Your task to perform on an android device: Add panasonic triple a to the cart on newegg Image 0: 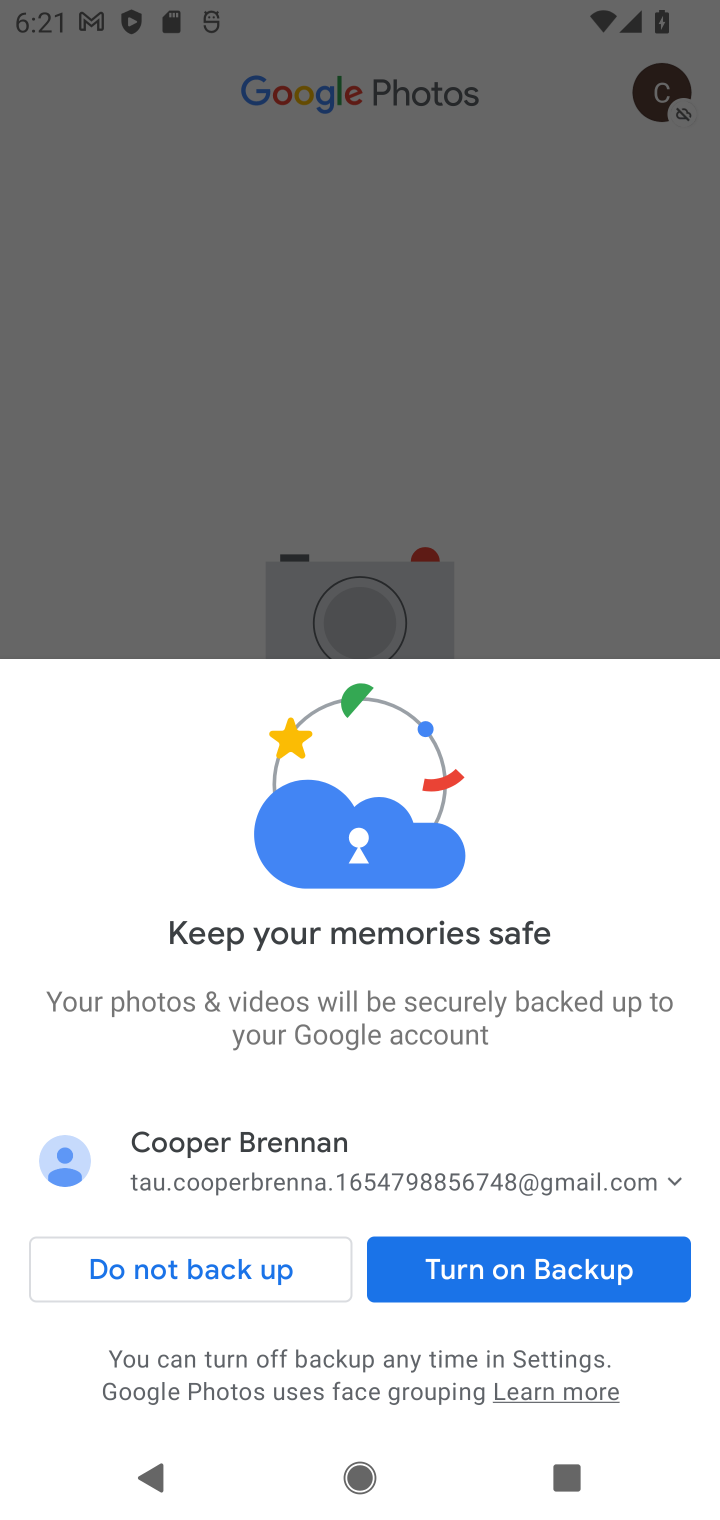
Step 0: press home button
Your task to perform on an android device: Add panasonic triple a to the cart on newegg Image 1: 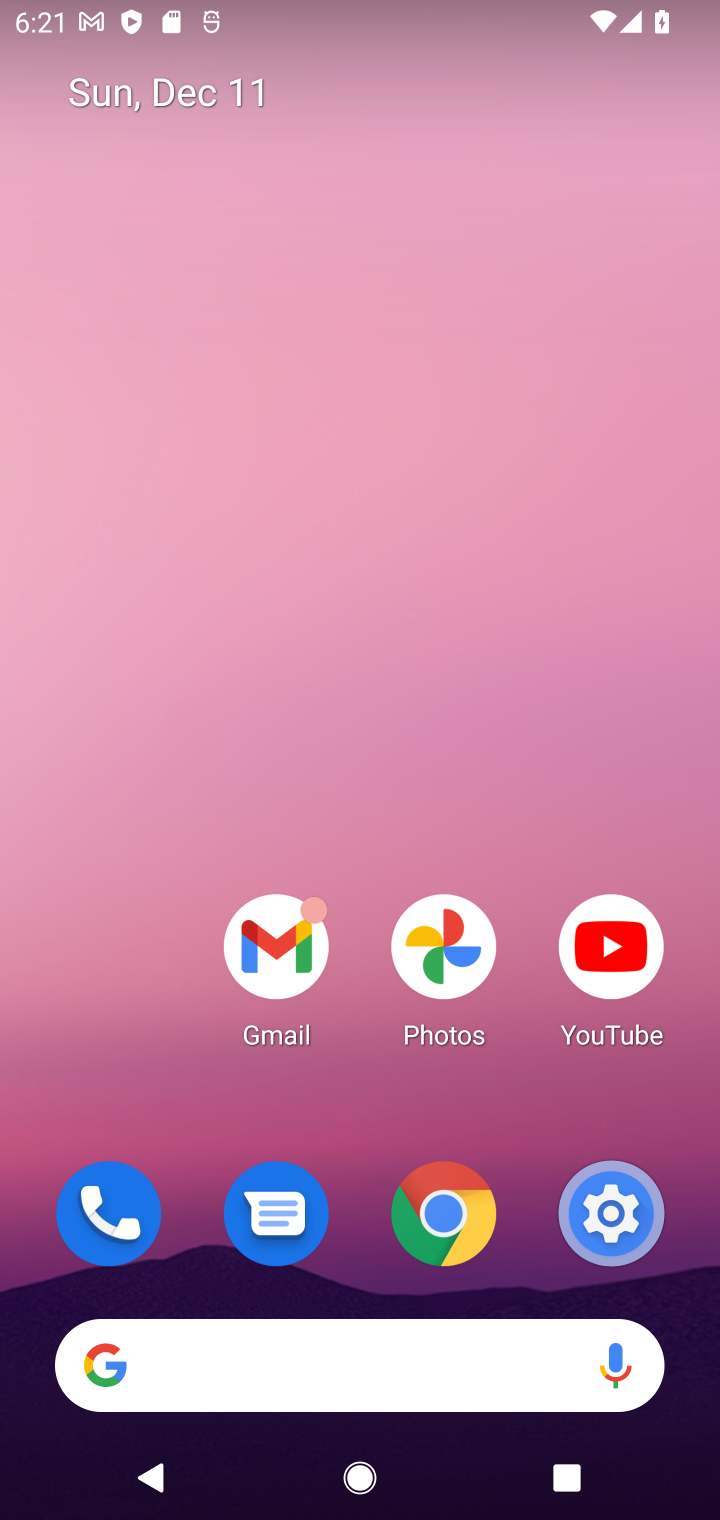
Step 1: click (415, 1325)
Your task to perform on an android device: Add panasonic triple a to the cart on newegg Image 2: 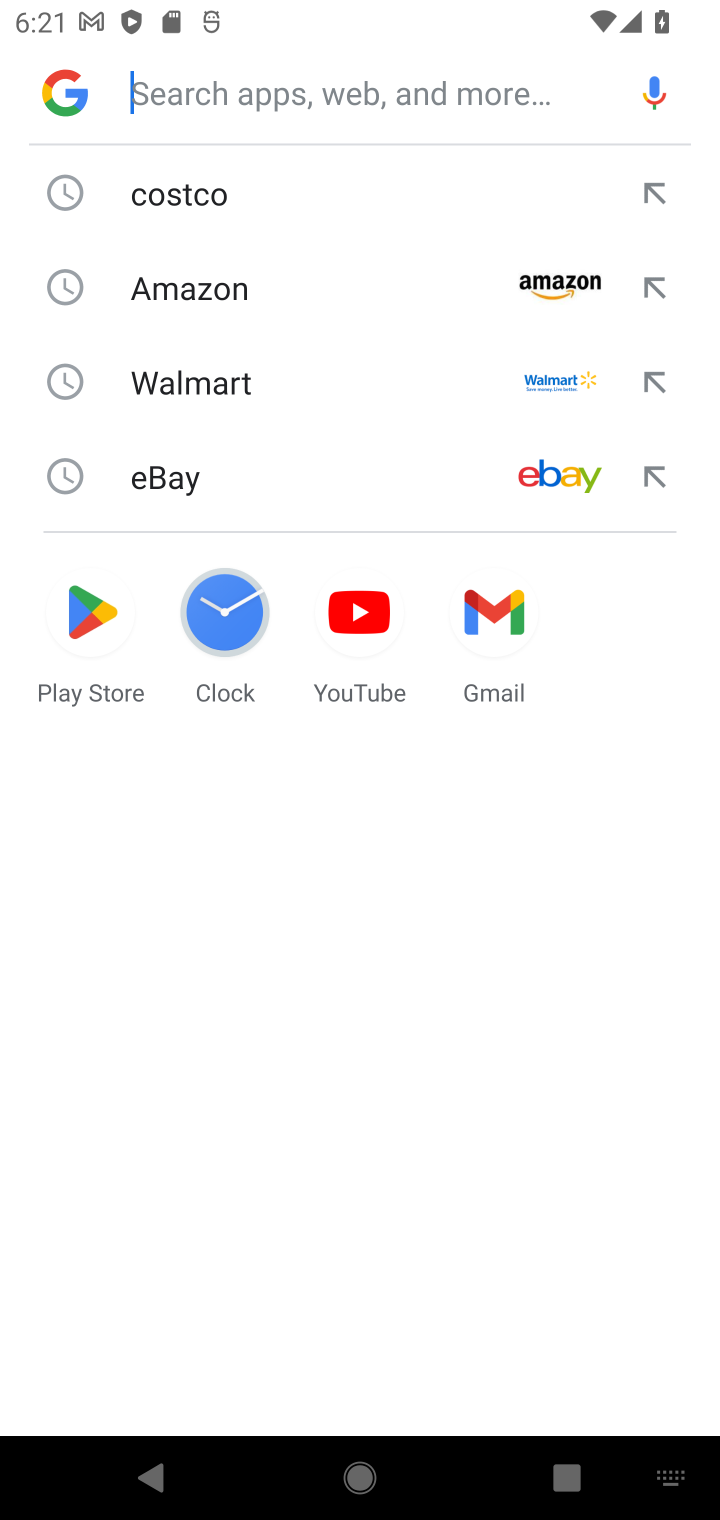
Step 2: type "newegg"
Your task to perform on an android device: Add panasonic triple a to the cart on newegg Image 3: 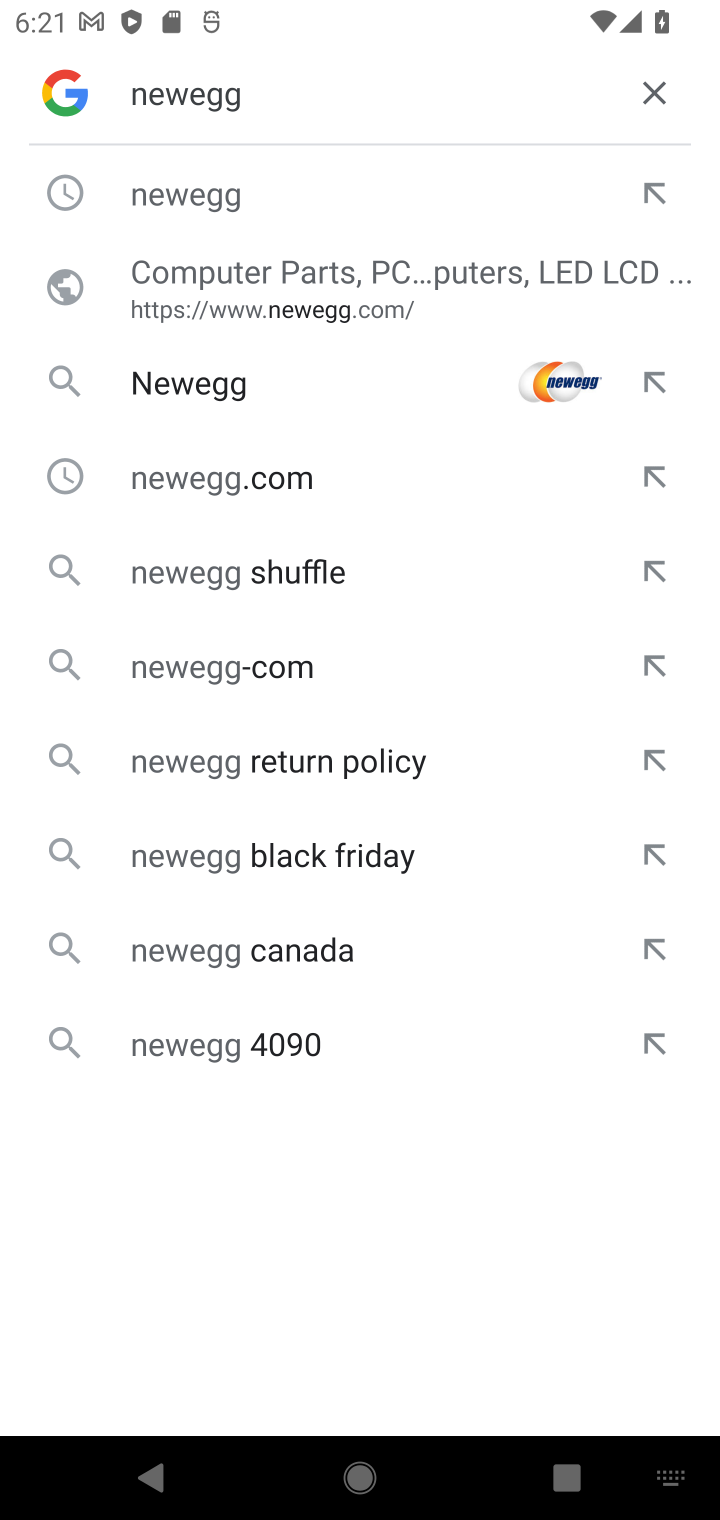
Step 3: click (335, 396)
Your task to perform on an android device: Add panasonic triple a to the cart on newegg Image 4: 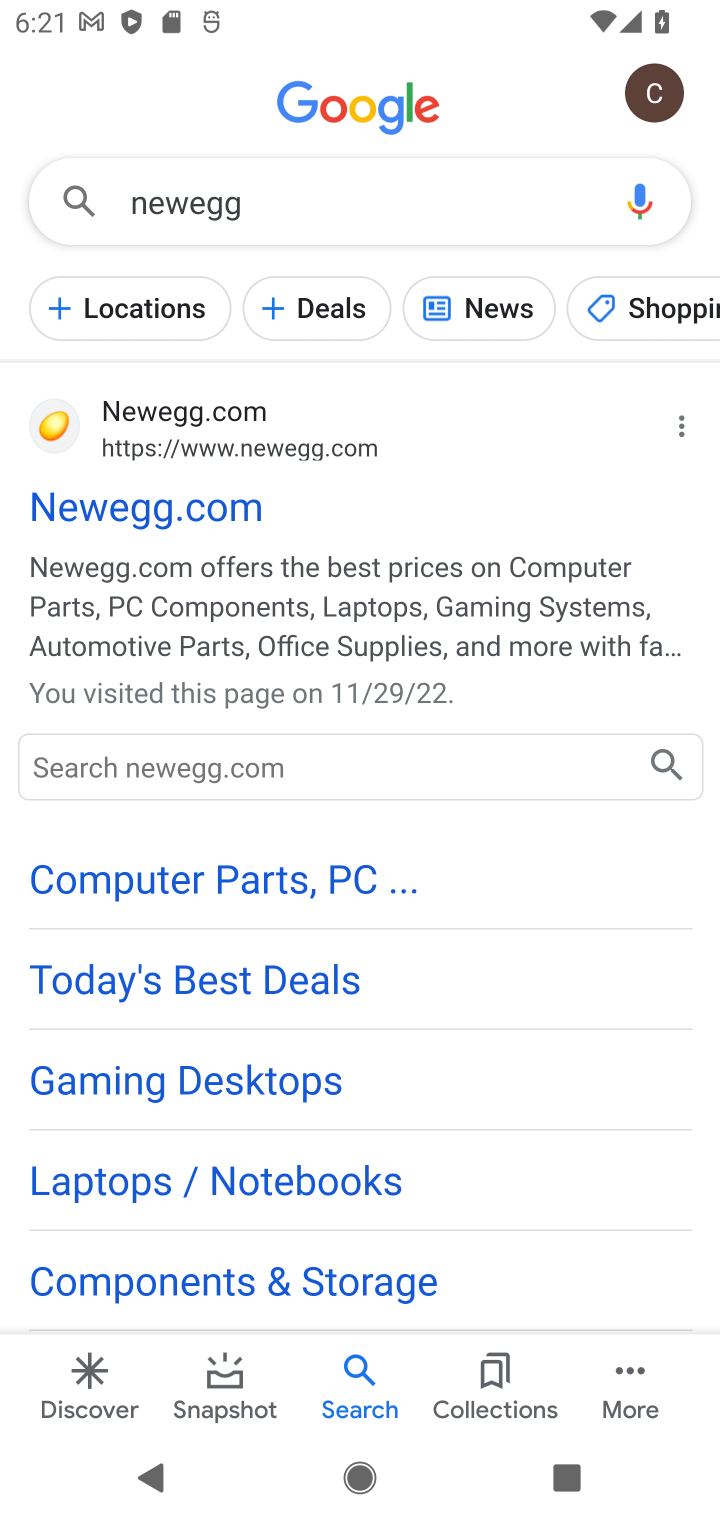
Step 4: click (134, 523)
Your task to perform on an android device: Add panasonic triple a to the cart on newegg Image 5: 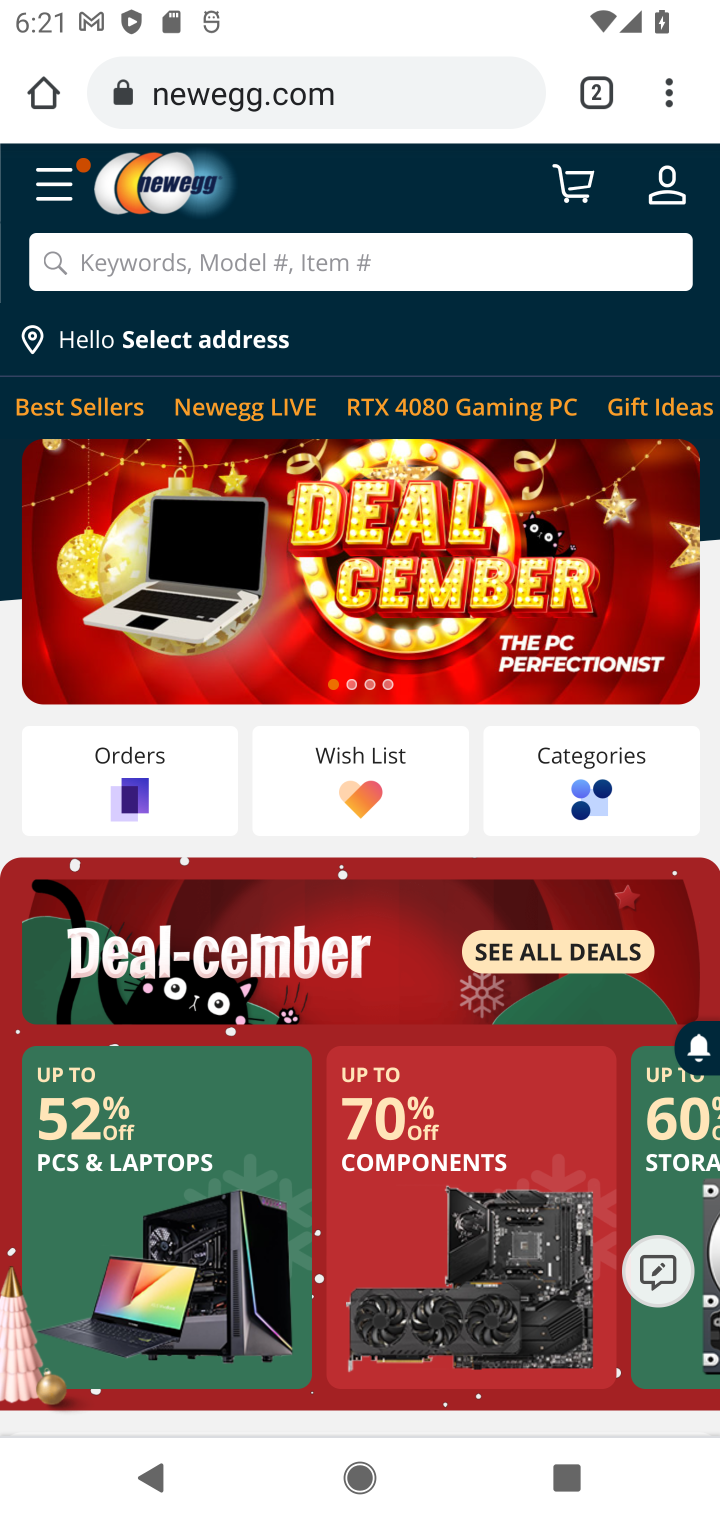
Step 5: click (353, 252)
Your task to perform on an android device: Add panasonic triple a to the cart on newegg Image 6: 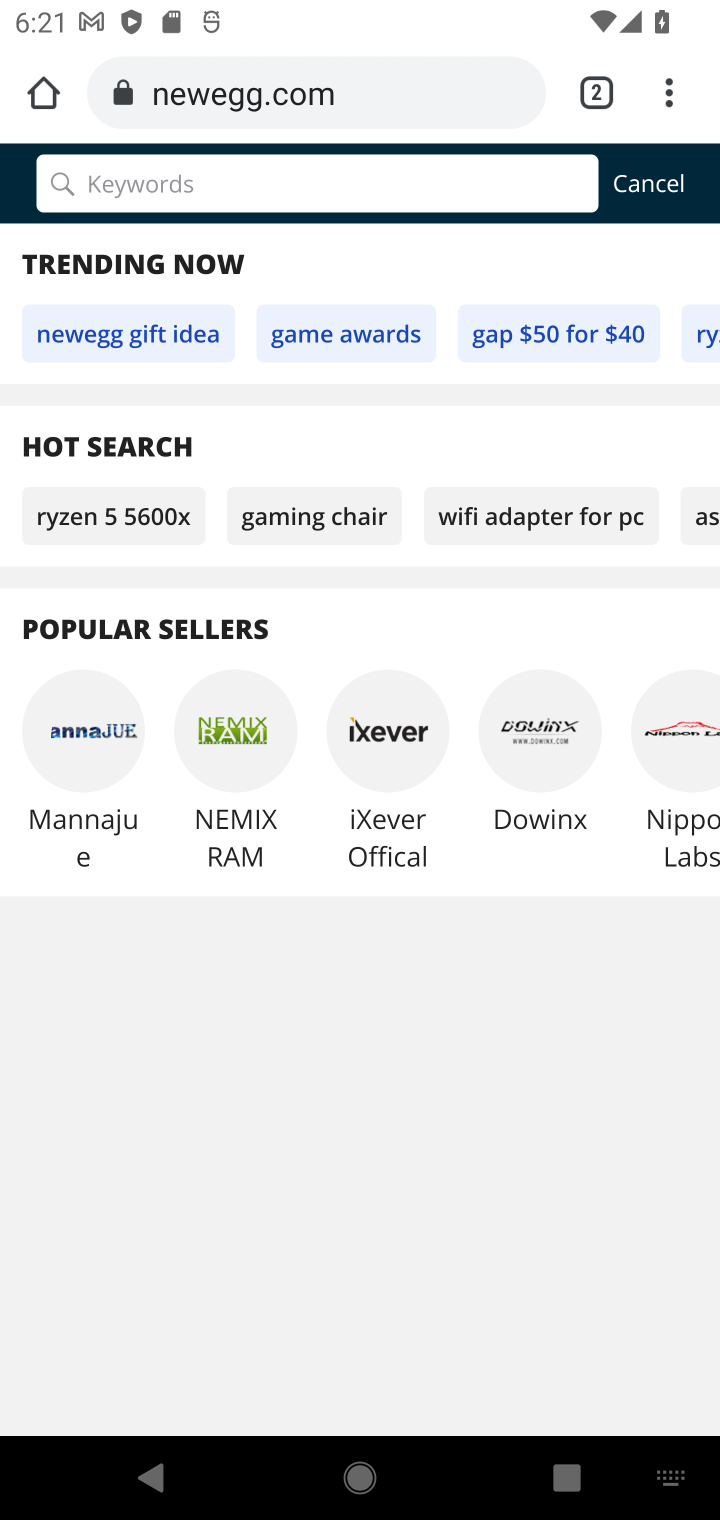
Step 6: type "panasonic triple a"
Your task to perform on an android device: Add panasonic triple a to the cart on newegg Image 7: 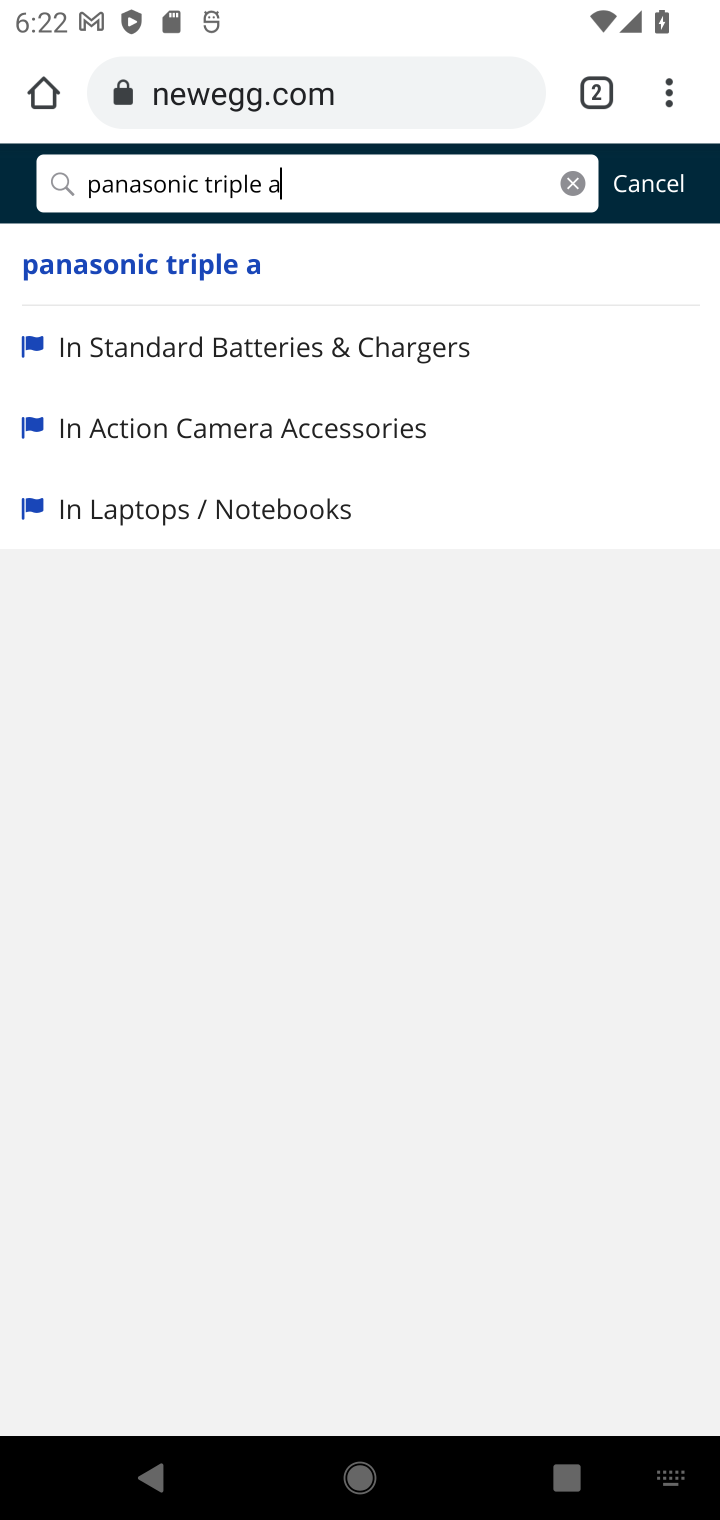
Step 7: click (325, 265)
Your task to perform on an android device: Add panasonic triple a to the cart on newegg Image 8: 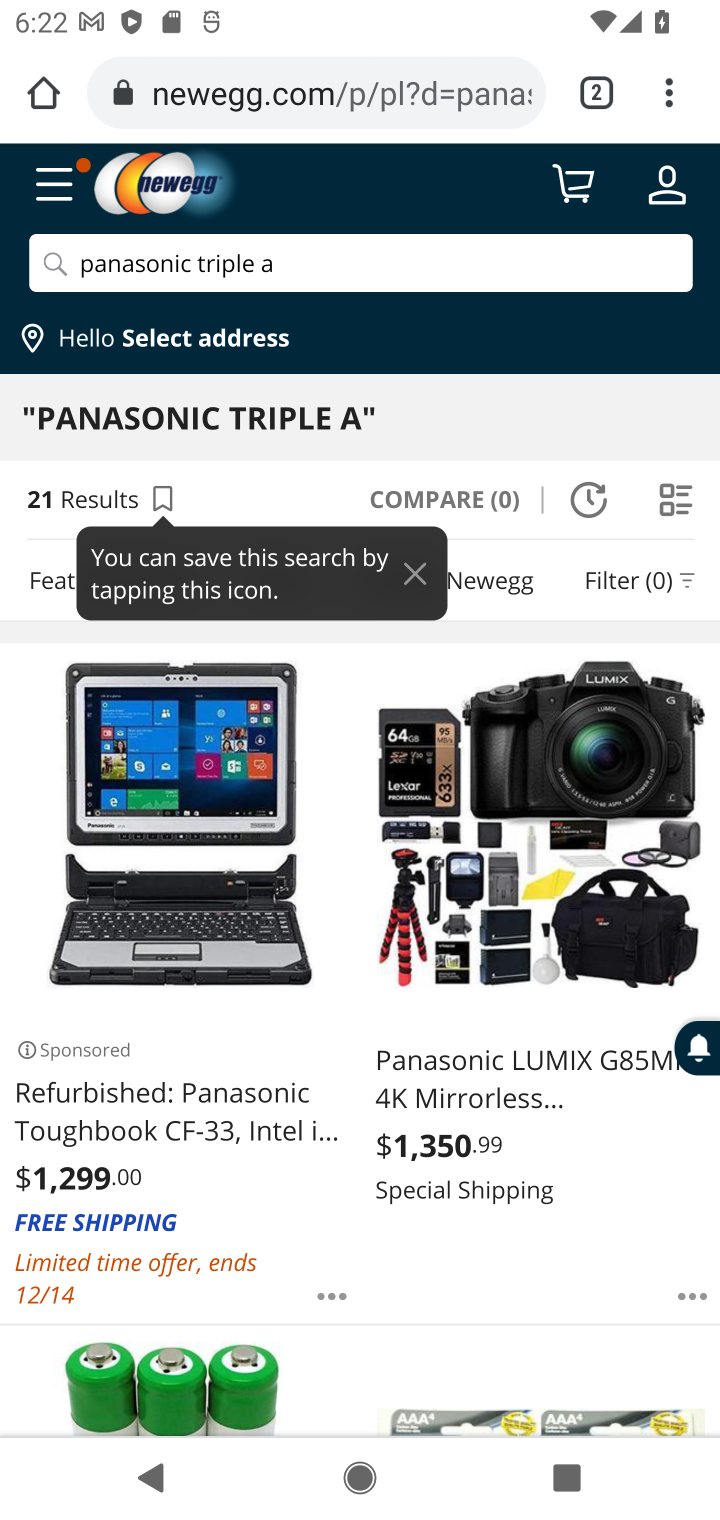
Step 8: click (279, 1112)
Your task to perform on an android device: Add panasonic triple a to the cart on newegg Image 9: 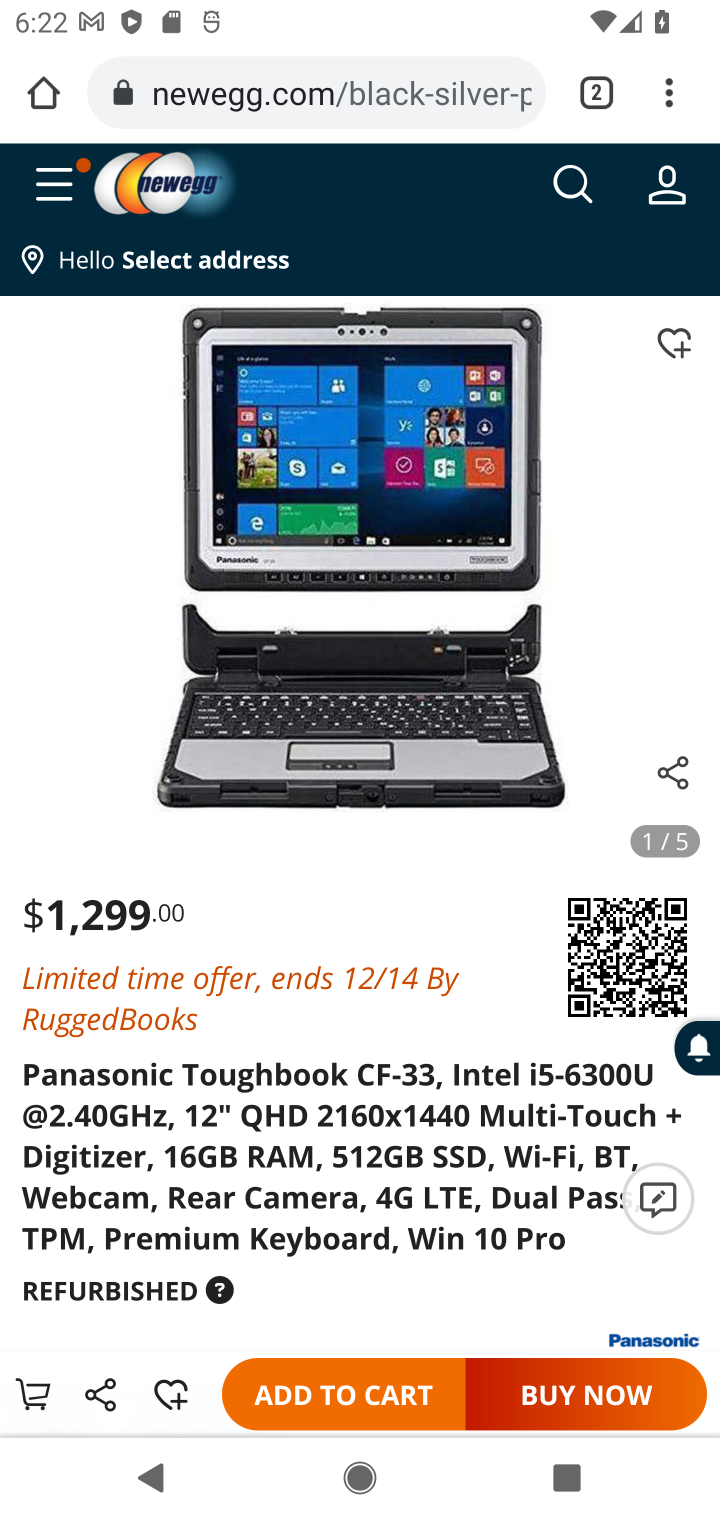
Step 9: click (353, 1420)
Your task to perform on an android device: Add panasonic triple a to the cart on newegg Image 10: 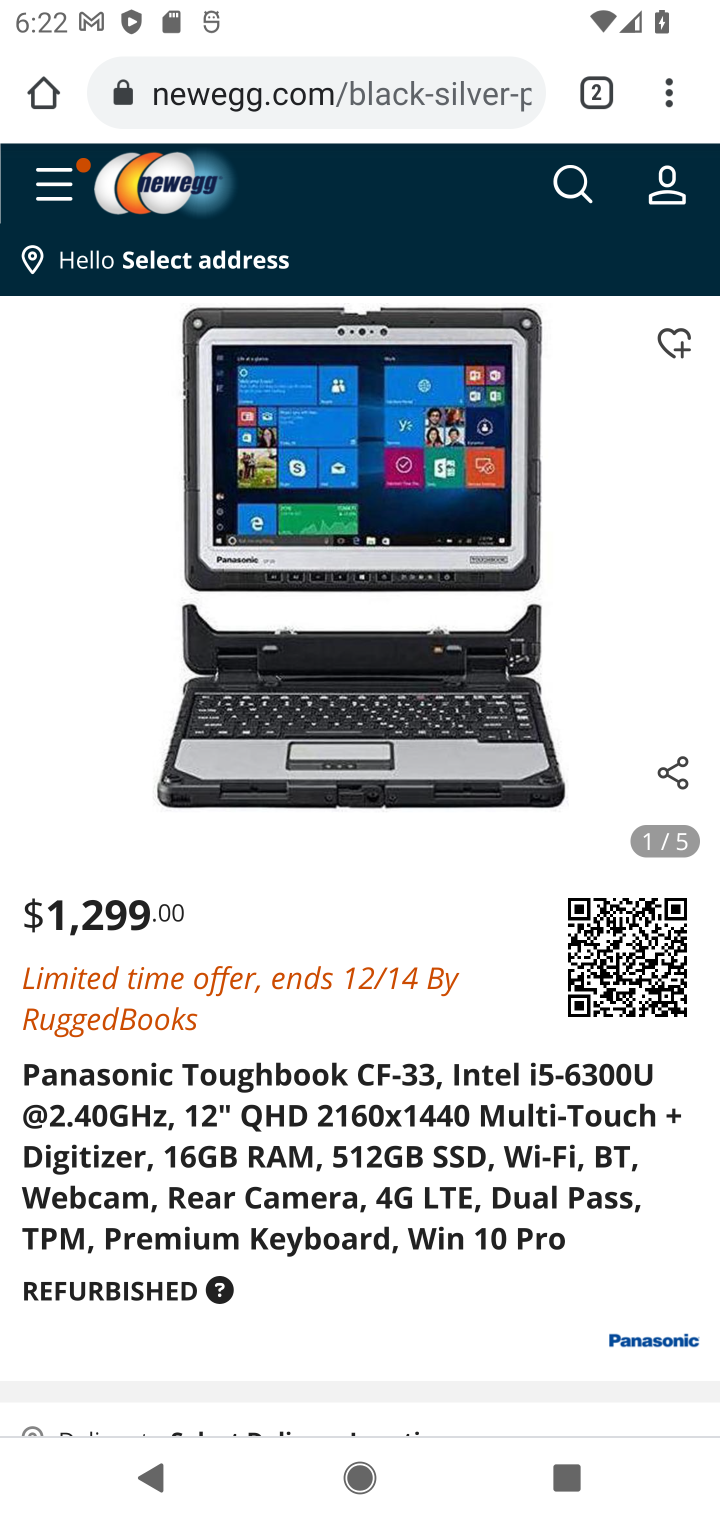
Step 10: task complete